Your task to perform on an android device: open chrome privacy settings Image 0: 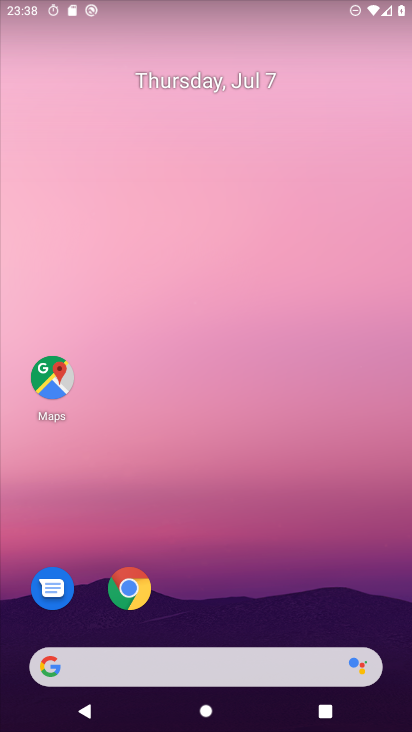
Step 0: drag from (248, 598) to (258, 109)
Your task to perform on an android device: open chrome privacy settings Image 1: 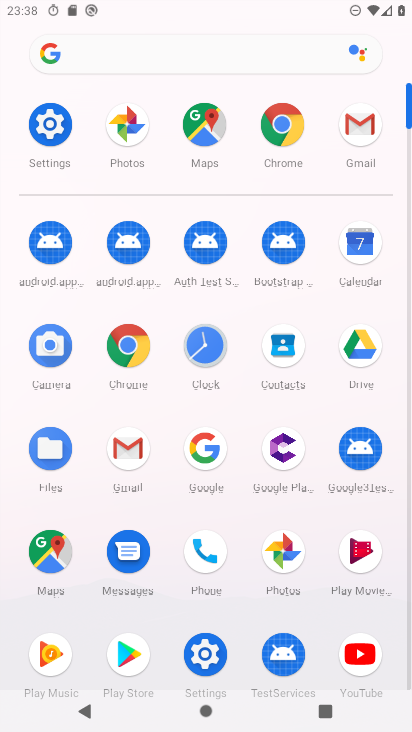
Step 1: click (130, 344)
Your task to perform on an android device: open chrome privacy settings Image 2: 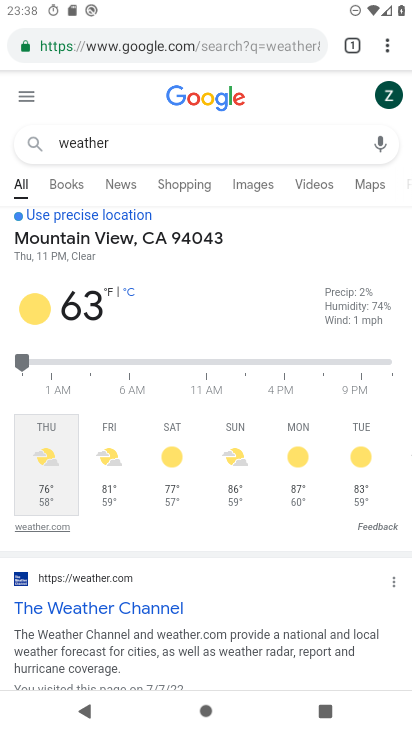
Step 2: click (391, 42)
Your task to perform on an android device: open chrome privacy settings Image 3: 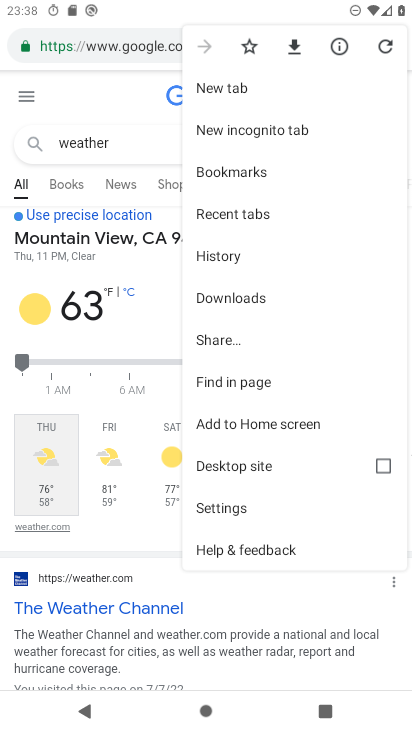
Step 3: click (239, 510)
Your task to perform on an android device: open chrome privacy settings Image 4: 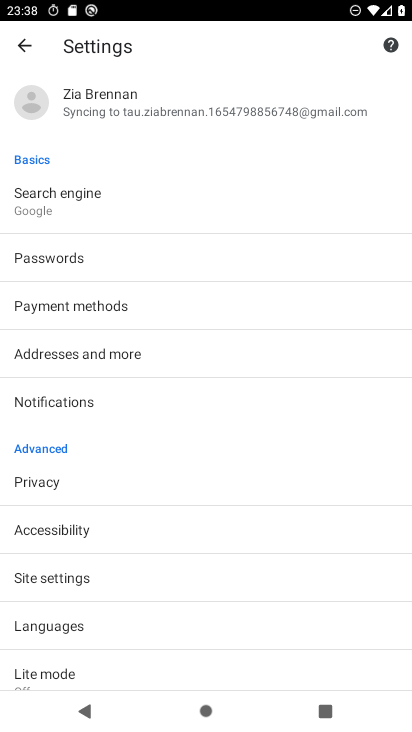
Step 4: click (43, 477)
Your task to perform on an android device: open chrome privacy settings Image 5: 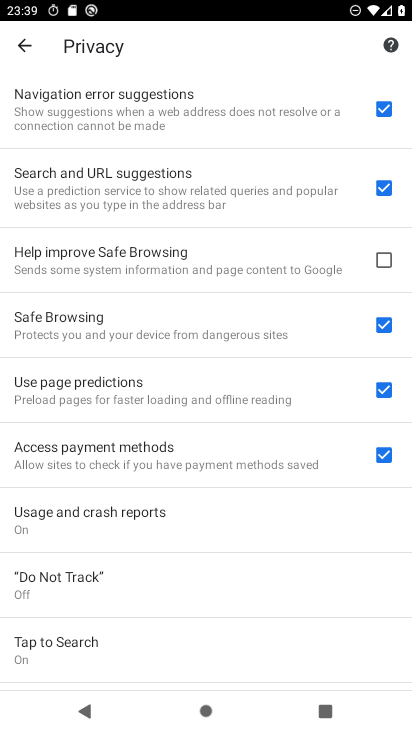
Step 5: task complete